Your task to perform on an android device: turn on translation in the chrome app Image 0: 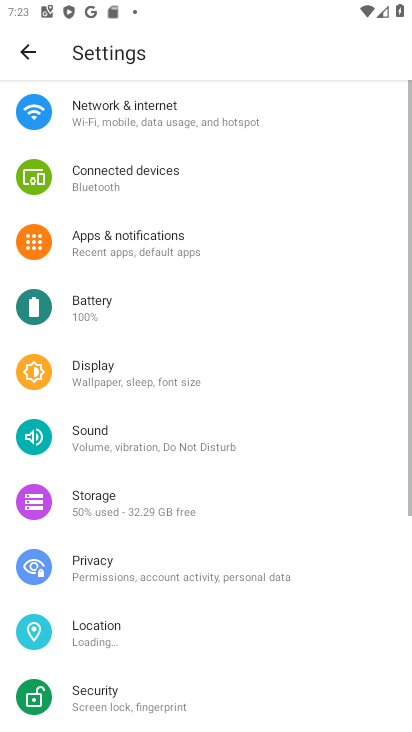
Step 0: press home button
Your task to perform on an android device: turn on translation in the chrome app Image 1: 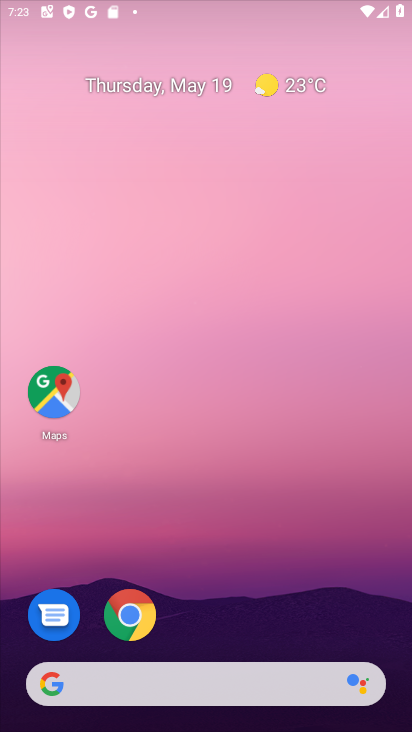
Step 1: drag from (384, 662) to (319, 4)
Your task to perform on an android device: turn on translation in the chrome app Image 2: 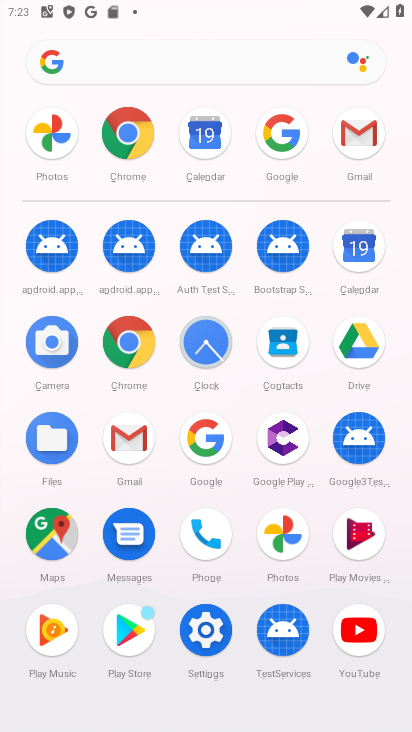
Step 2: click (127, 355)
Your task to perform on an android device: turn on translation in the chrome app Image 3: 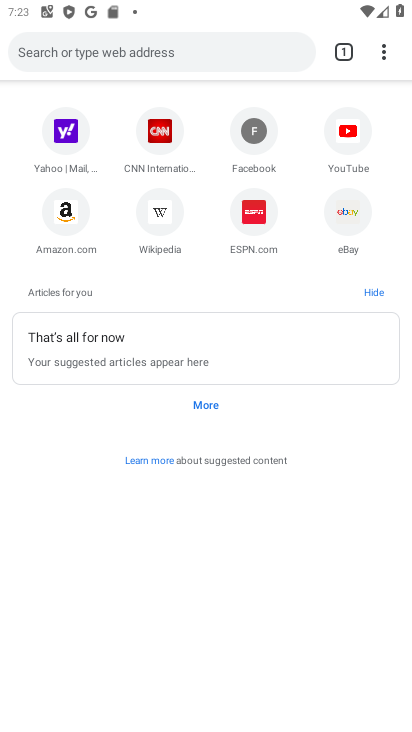
Step 3: click (384, 51)
Your task to perform on an android device: turn on translation in the chrome app Image 4: 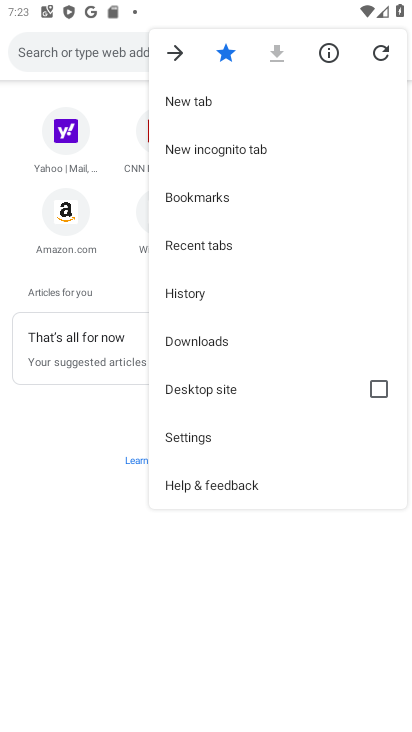
Step 4: click (210, 446)
Your task to perform on an android device: turn on translation in the chrome app Image 5: 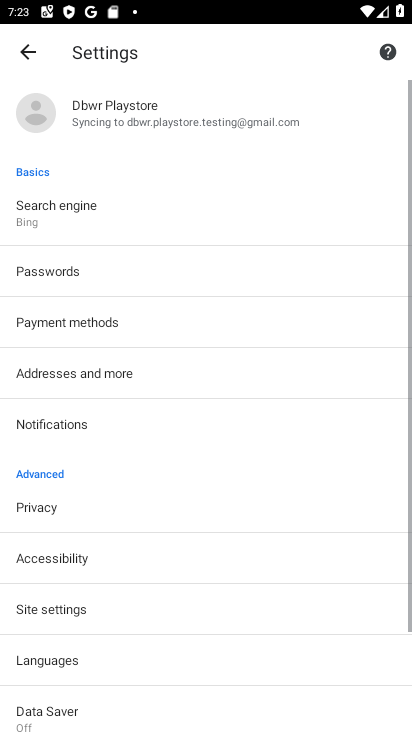
Step 5: click (111, 661)
Your task to perform on an android device: turn on translation in the chrome app Image 6: 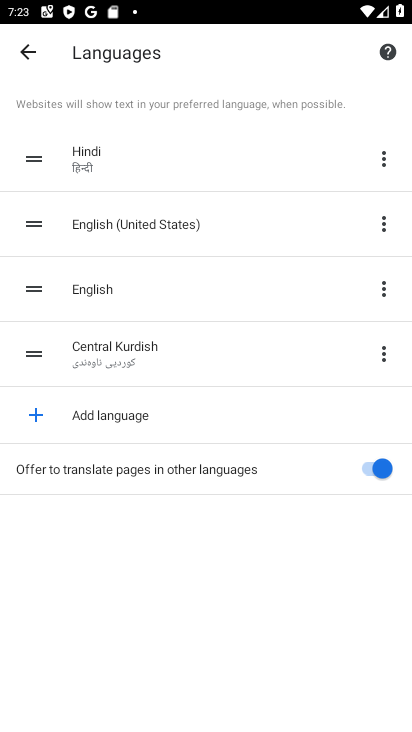
Step 6: click (355, 466)
Your task to perform on an android device: turn on translation in the chrome app Image 7: 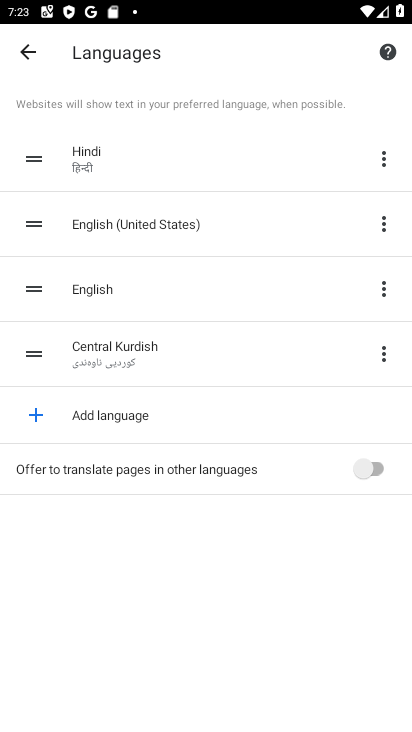
Step 7: click (355, 466)
Your task to perform on an android device: turn on translation in the chrome app Image 8: 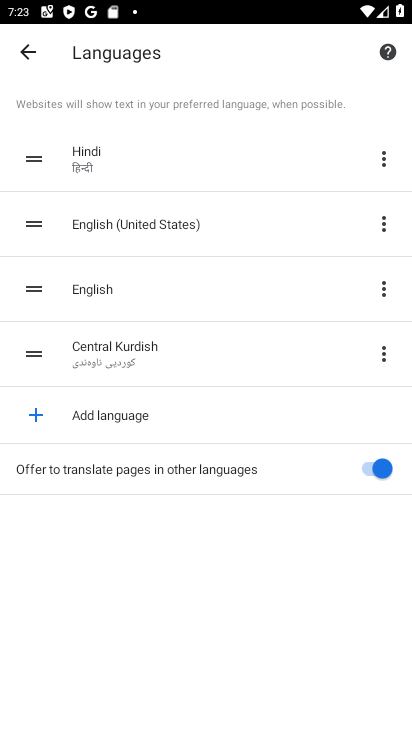
Step 8: task complete